Your task to perform on an android device: set the stopwatch Image 0: 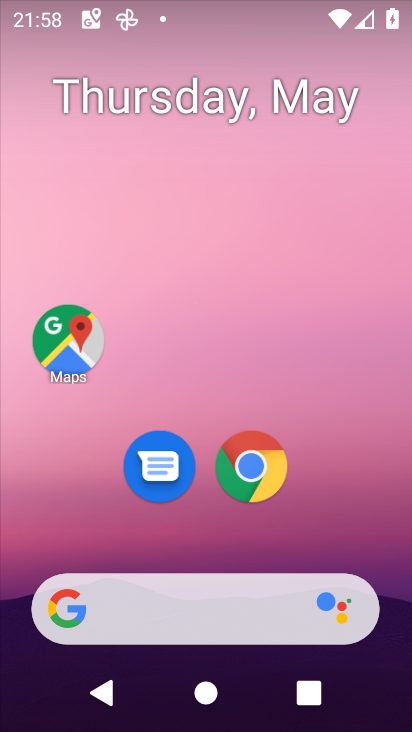
Step 0: drag from (318, 542) to (271, 67)
Your task to perform on an android device: set the stopwatch Image 1: 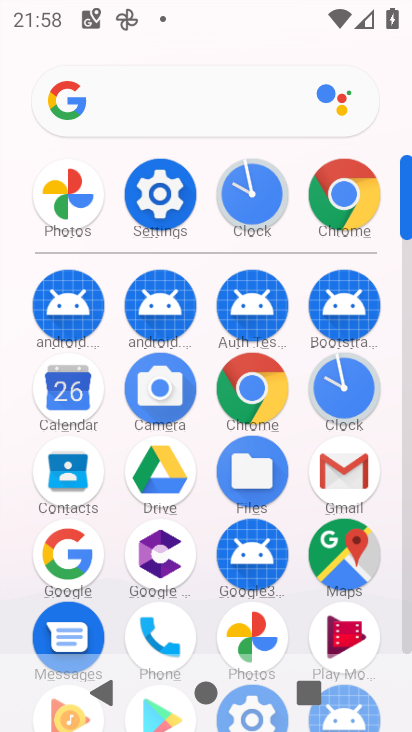
Step 1: click (250, 210)
Your task to perform on an android device: set the stopwatch Image 2: 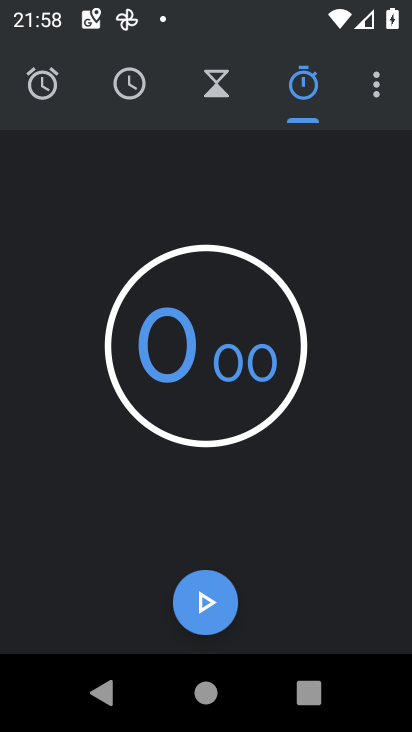
Step 2: task complete